Your task to perform on an android device: Go to Maps Image 0: 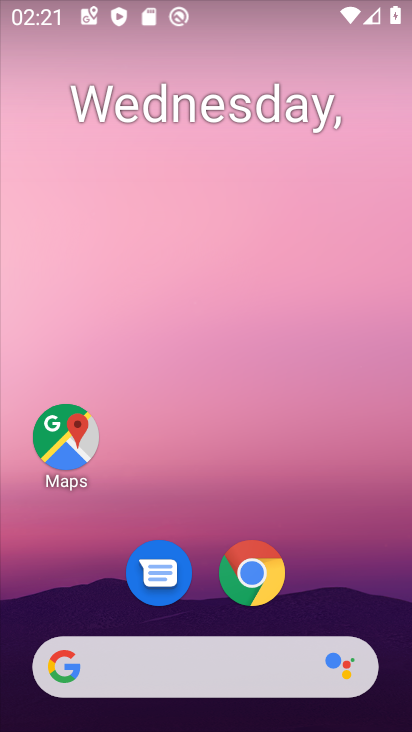
Step 0: click (63, 439)
Your task to perform on an android device: Go to Maps Image 1: 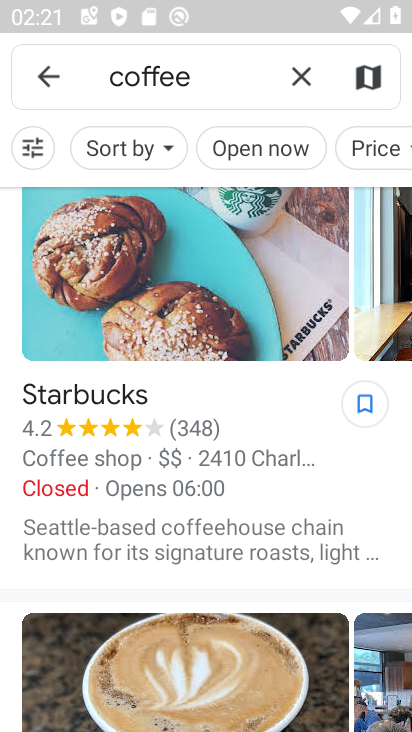
Step 1: task complete